Your task to perform on an android device: change text size in settings app Image 0: 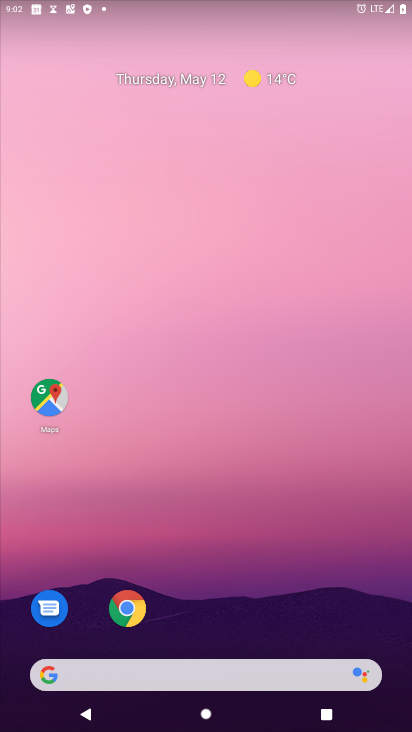
Step 0: drag from (200, 655) to (232, 239)
Your task to perform on an android device: change text size in settings app Image 1: 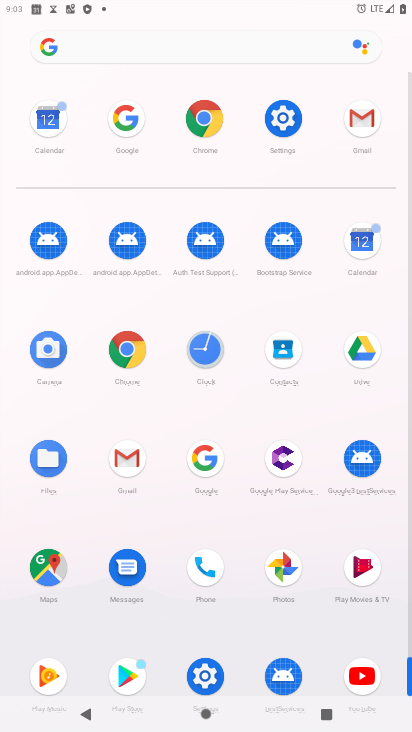
Step 1: click (275, 114)
Your task to perform on an android device: change text size in settings app Image 2: 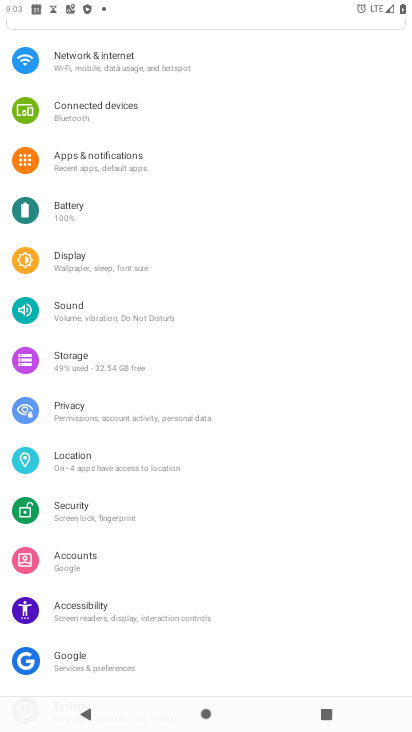
Step 2: click (127, 620)
Your task to perform on an android device: change text size in settings app Image 3: 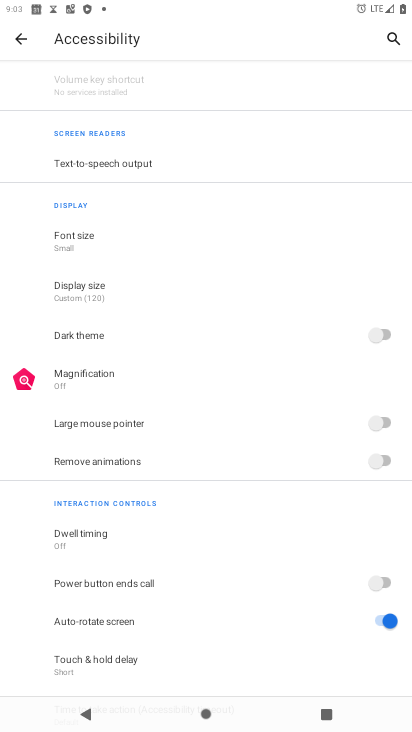
Step 3: click (89, 240)
Your task to perform on an android device: change text size in settings app Image 4: 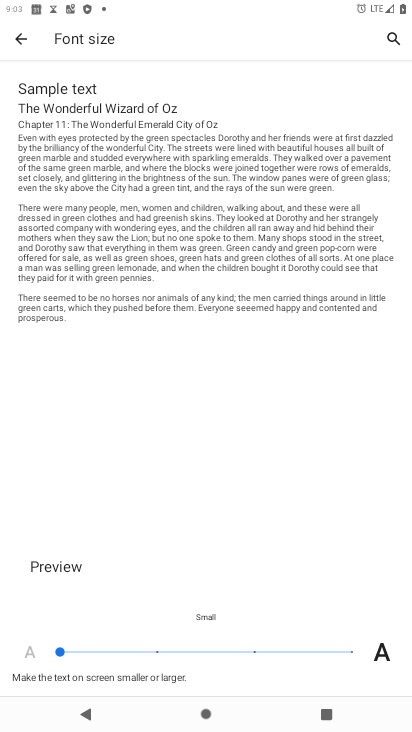
Step 4: click (155, 642)
Your task to perform on an android device: change text size in settings app Image 5: 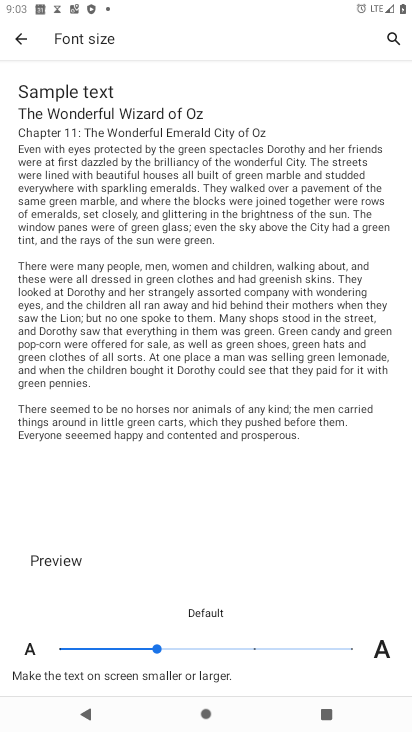
Step 5: task complete